Your task to perform on an android device: Go to battery settings Image 0: 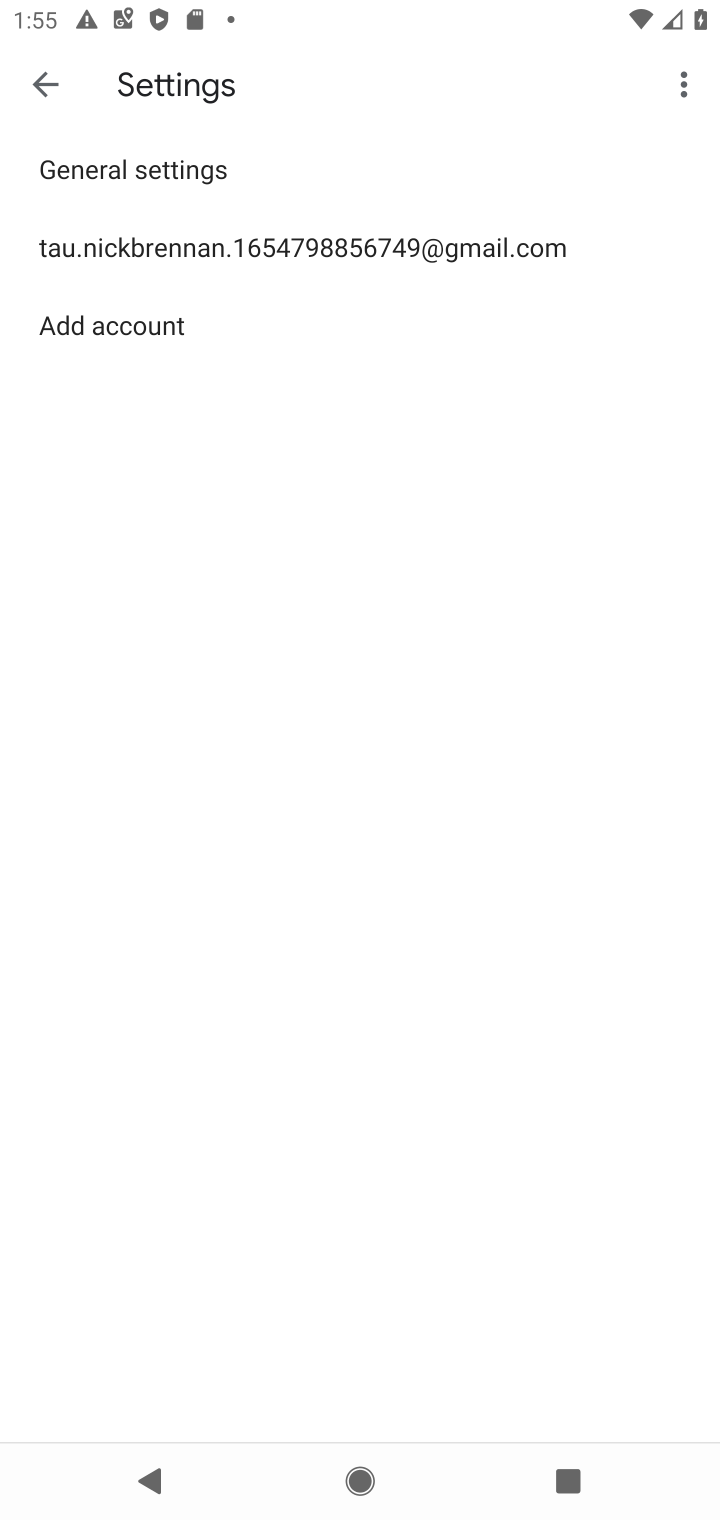
Step 0: press home button
Your task to perform on an android device: Go to battery settings Image 1: 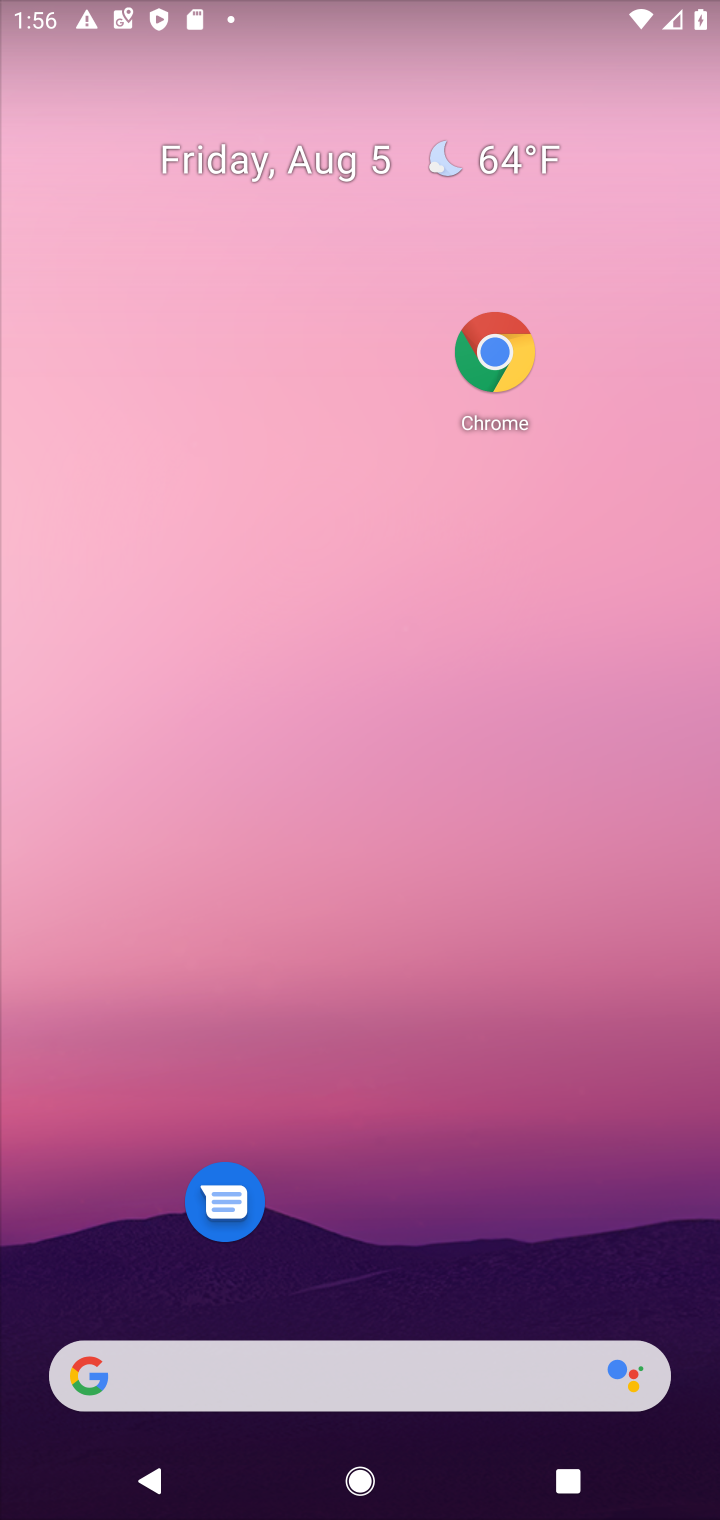
Step 1: drag from (489, 1109) to (403, 272)
Your task to perform on an android device: Go to battery settings Image 2: 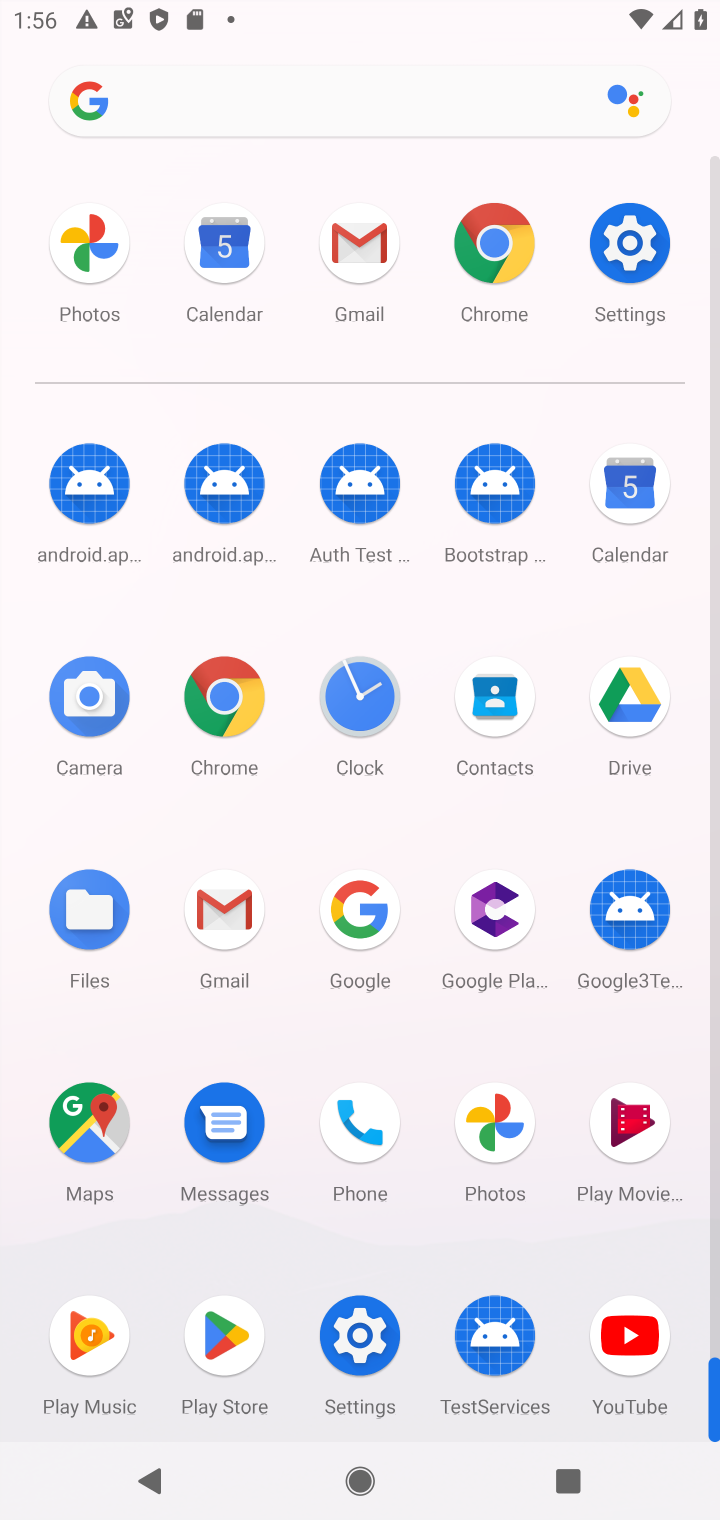
Step 2: click (359, 1326)
Your task to perform on an android device: Go to battery settings Image 3: 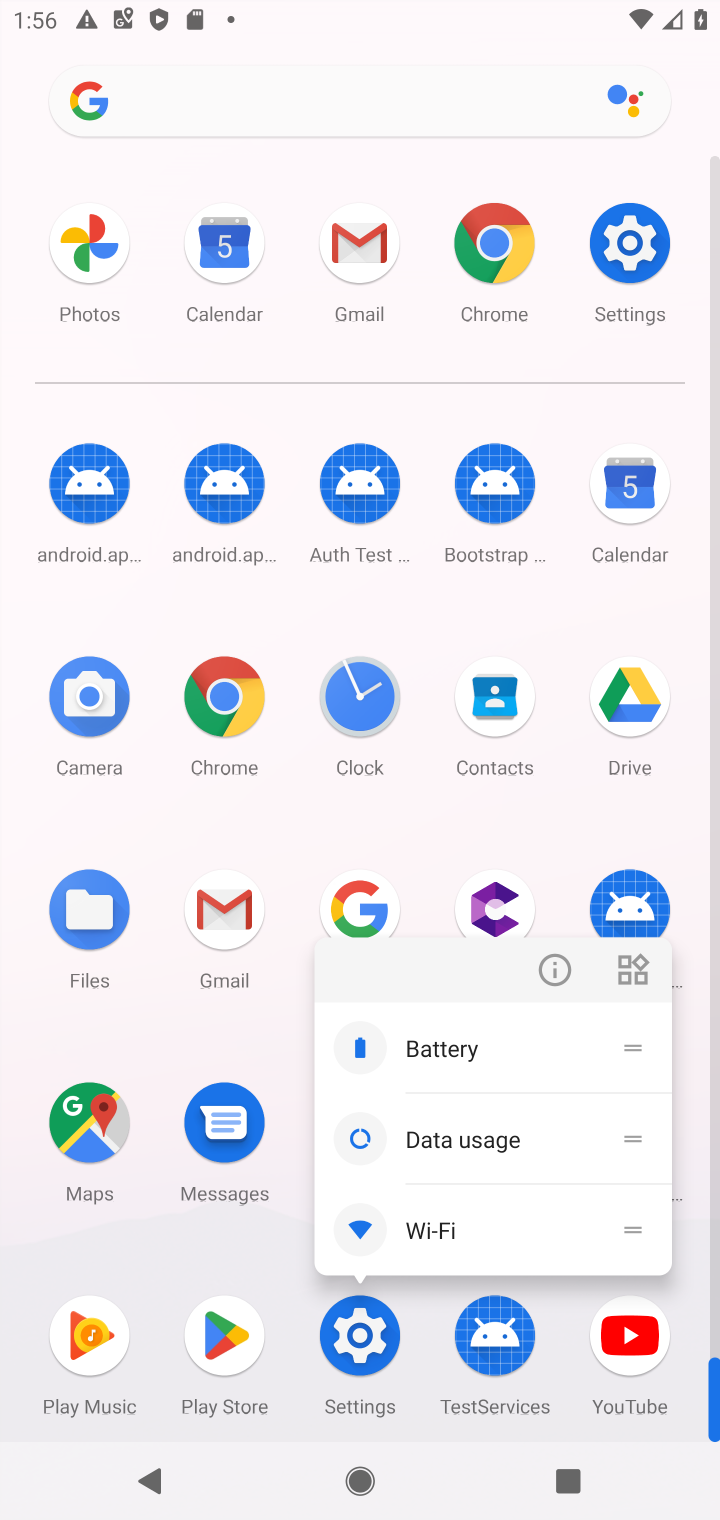
Step 3: click (341, 1331)
Your task to perform on an android device: Go to battery settings Image 4: 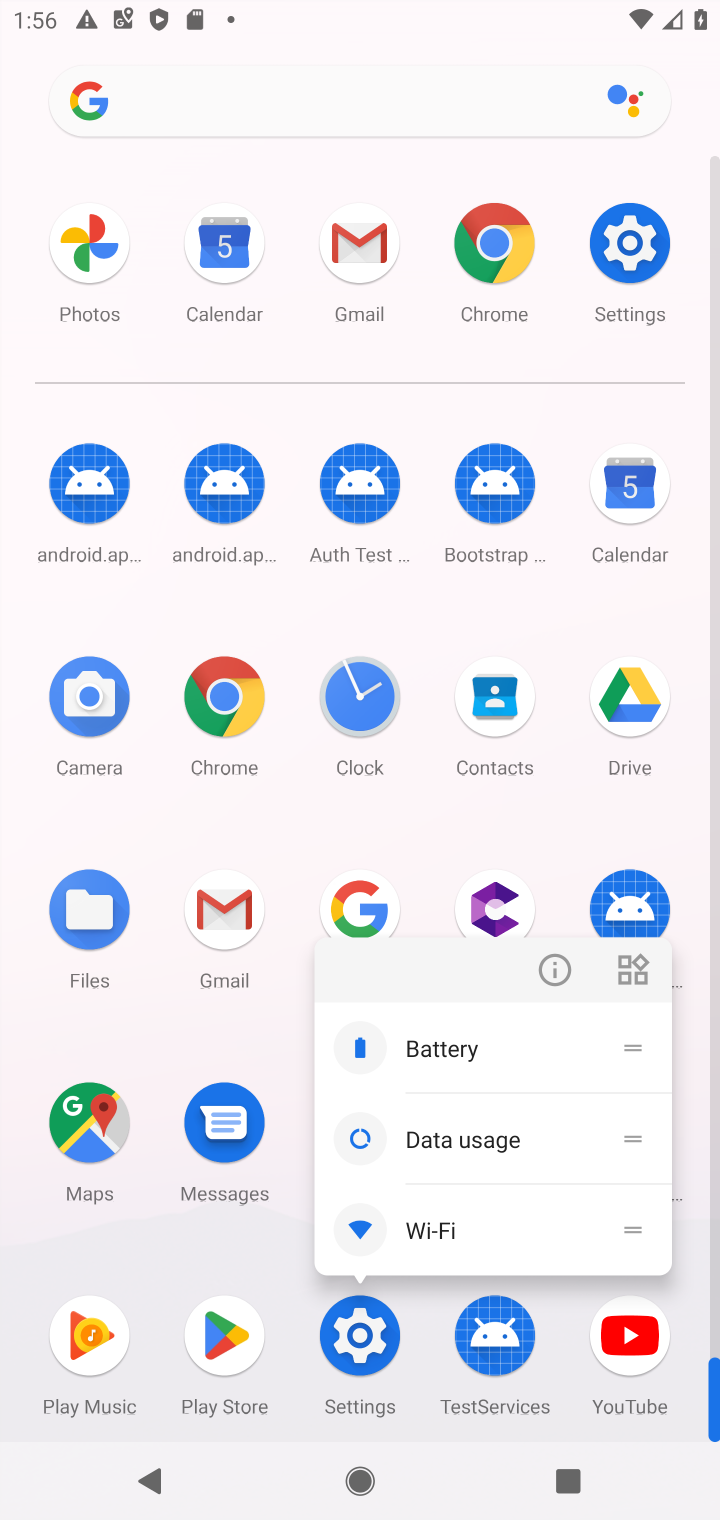
Step 4: click (369, 1345)
Your task to perform on an android device: Go to battery settings Image 5: 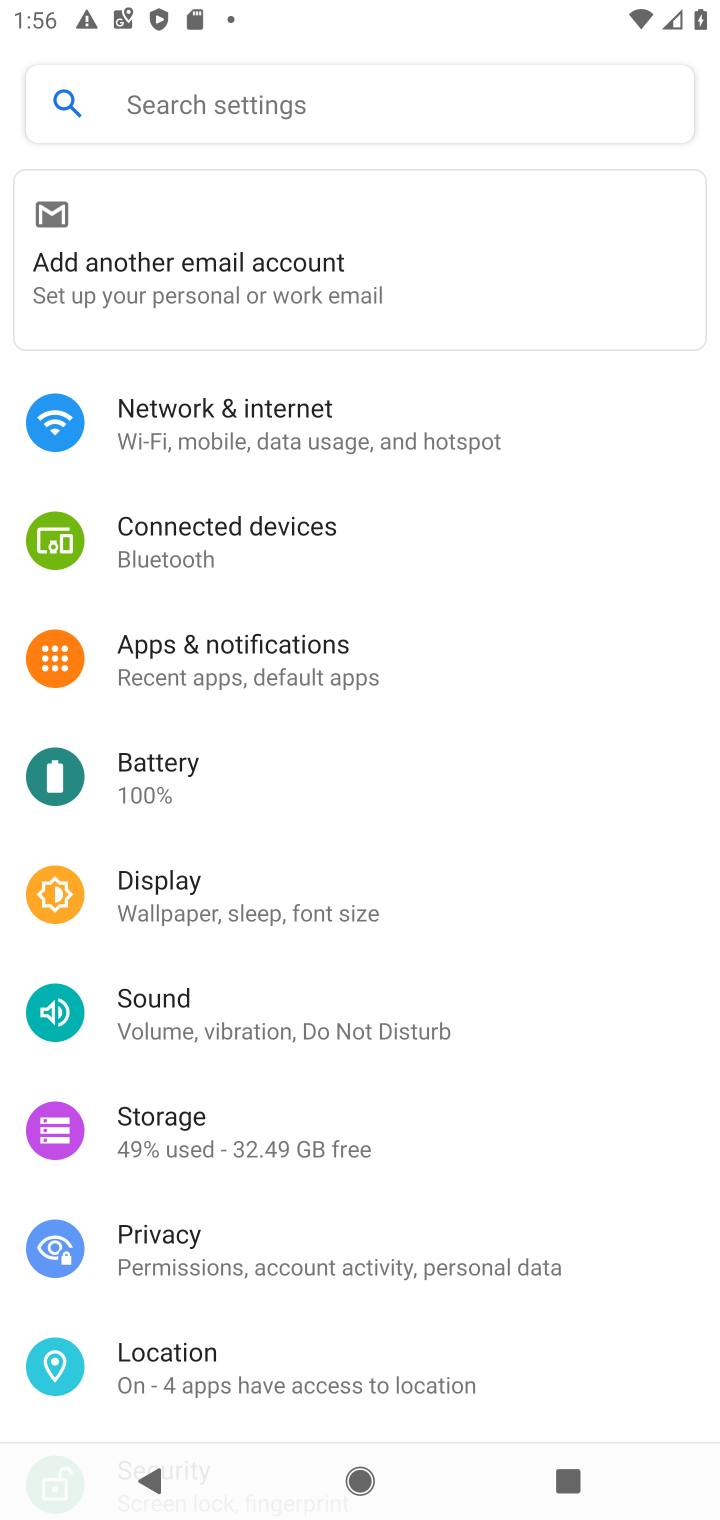
Step 5: click (152, 781)
Your task to perform on an android device: Go to battery settings Image 6: 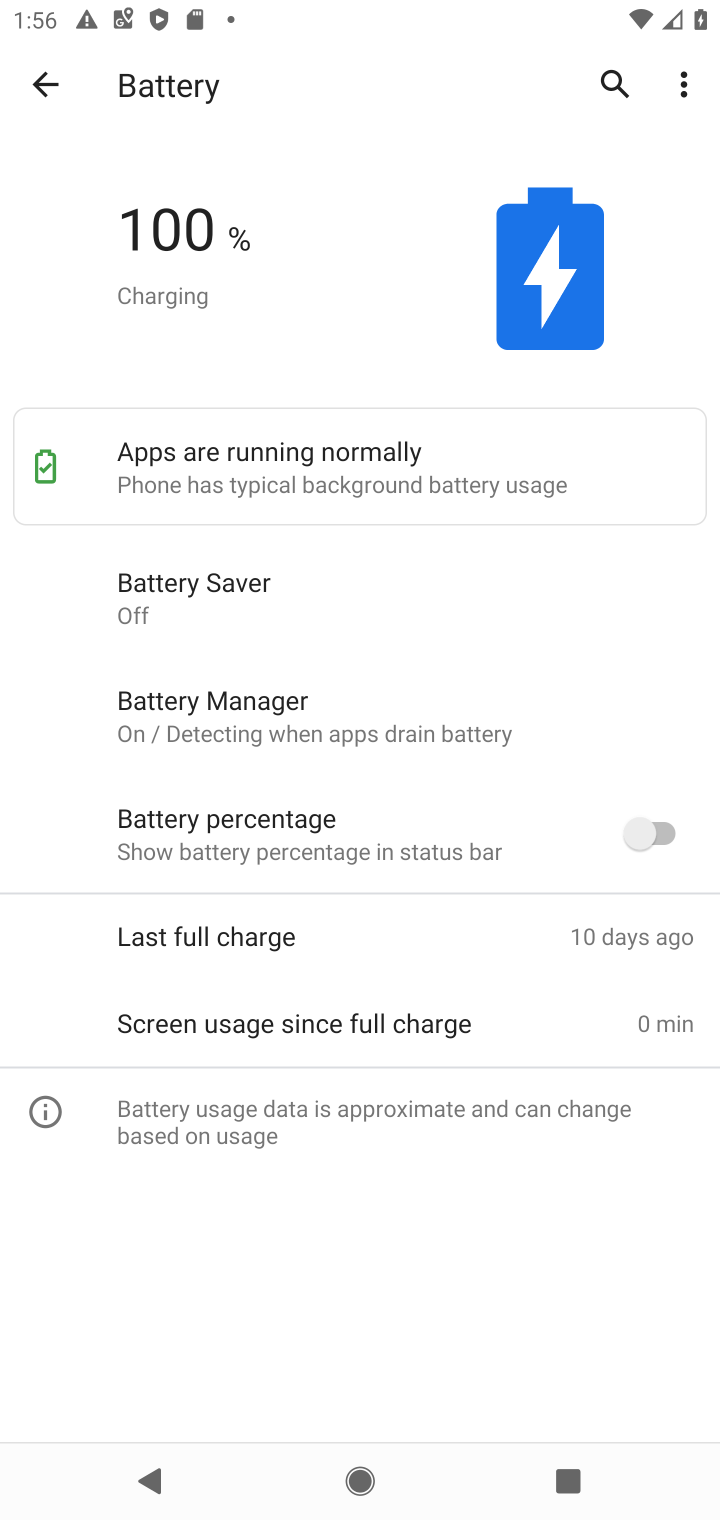
Step 6: task complete